Your task to perform on an android device: toggle pop-ups in chrome Image 0: 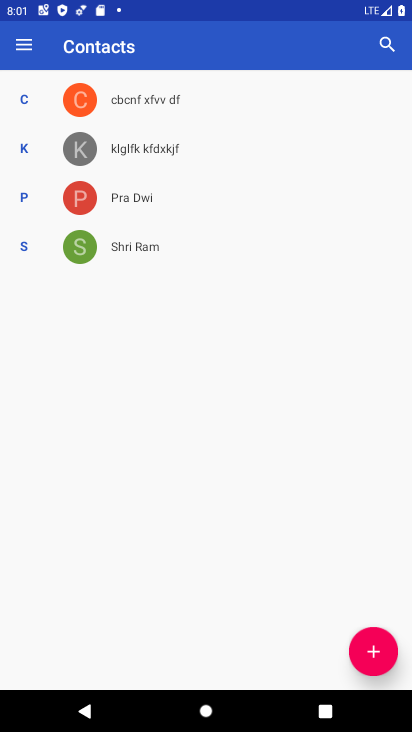
Step 0: press home button
Your task to perform on an android device: toggle pop-ups in chrome Image 1: 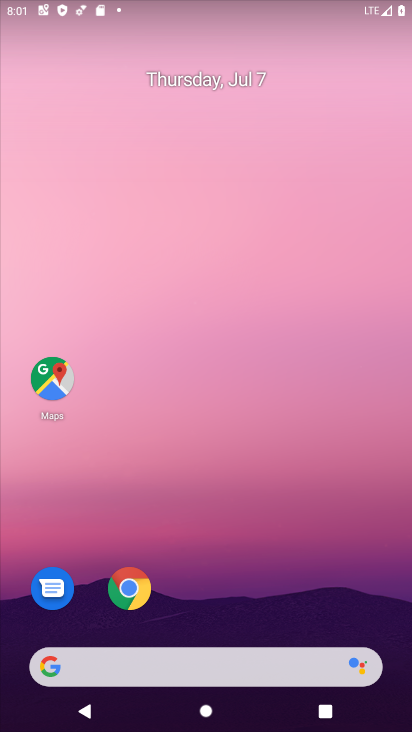
Step 1: drag from (317, 584) to (345, 141)
Your task to perform on an android device: toggle pop-ups in chrome Image 2: 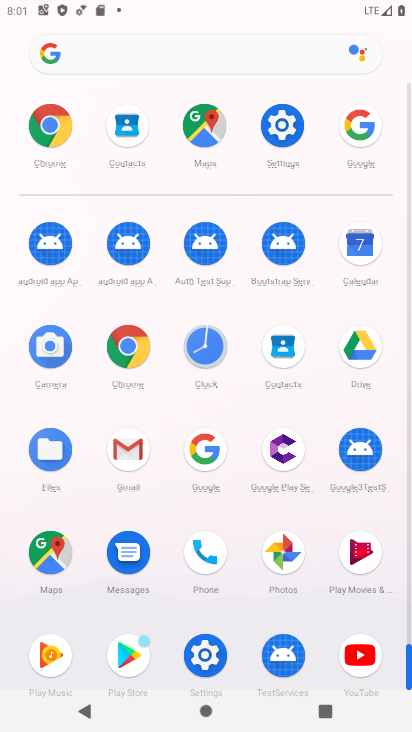
Step 2: click (124, 341)
Your task to perform on an android device: toggle pop-ups in chrome Image 3: 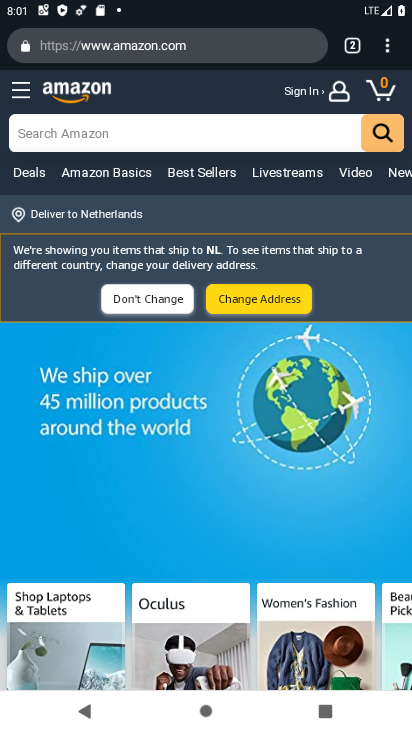
Step 3: click (392, 42)
Your task to perform on an android device: toggle pop-ups in chrome Image 4: 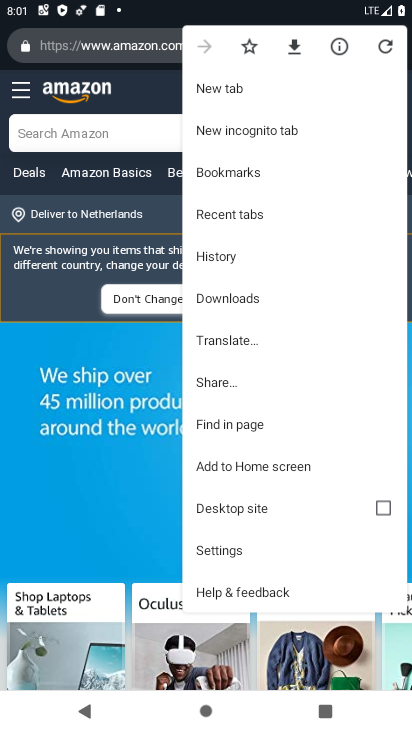
Step 4: click (217, 547)
Your task to perform on an android device: toggle pop-ups in chrome Image 5: 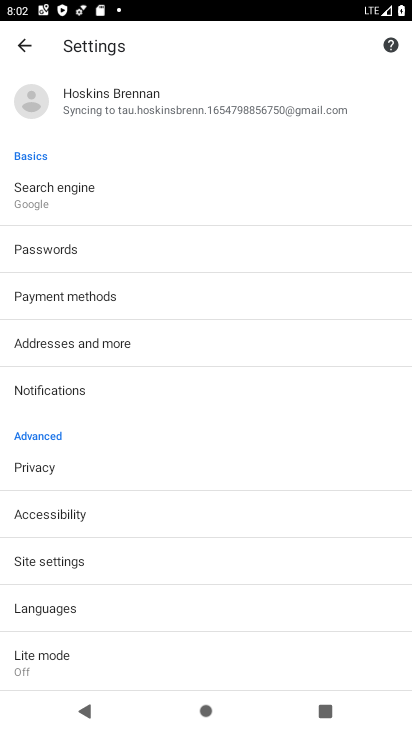
Step 5: click (75, 563)
Your task to perform on an android device: toggle pop-ups in chrome Image 6: 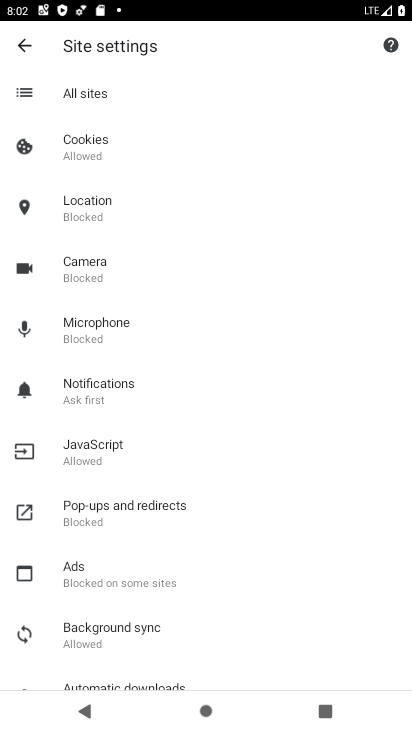
Step 6: click (124, 504)
Your task to perform on an android device: toggle pop-ups in chrome Image 7: 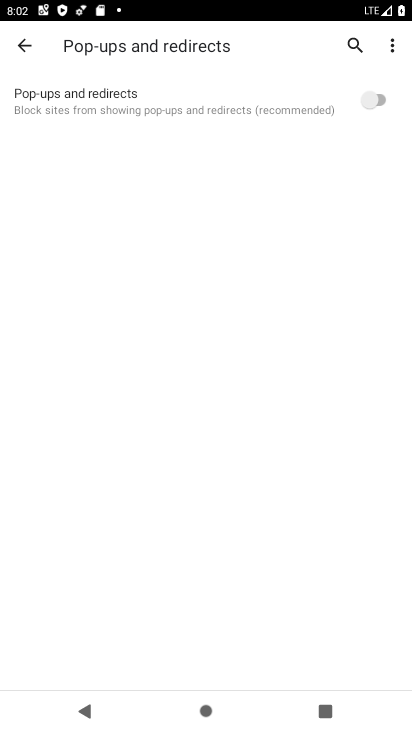
Step 7: click (376, 103)
Your task to perform on an android device: toggle pop-ups in chrome Image 8: 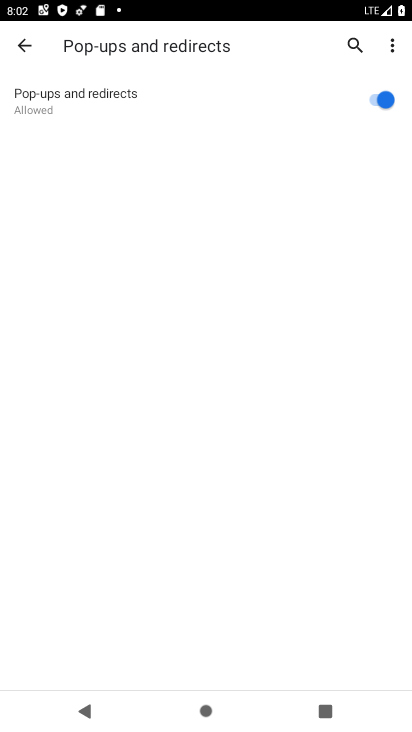
Step 8: task complete